Your task to perform on an android device: change the clock display to analog Image 0: 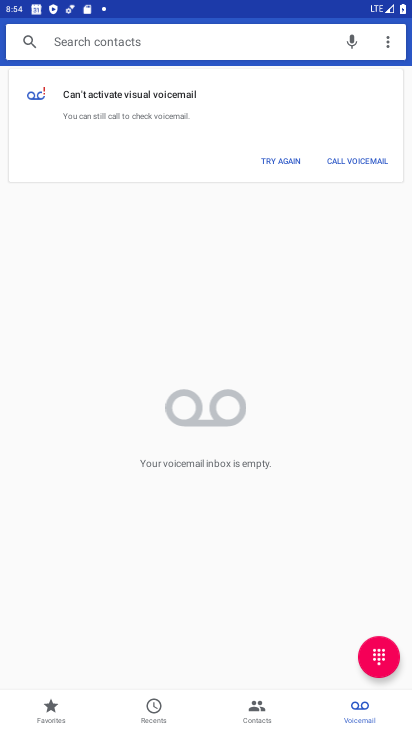
Step 0: press home button
Your task to perform on an android device: change the clock display to analog Image 1: 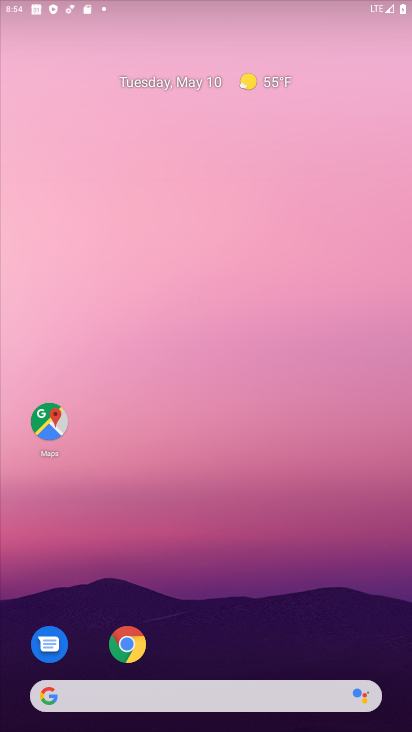
Step 1: drag from (235, 636) to (178, 138)
Your task to perform on an android device: change the clock display to analog Image 2: 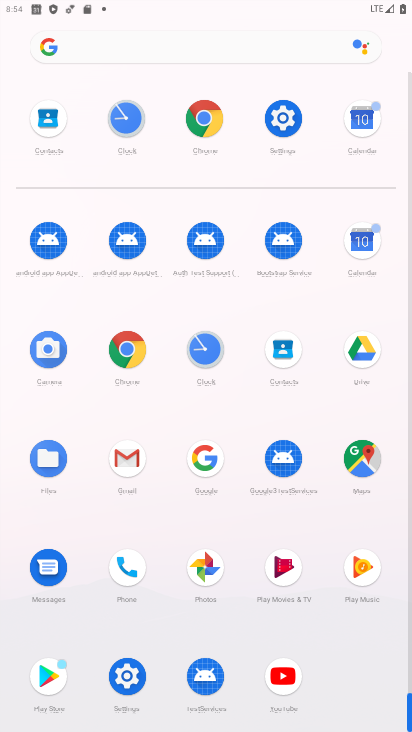
Step 2: click (218, 357)
Your task to perform on an android device: change the clock display to analog Image 3: 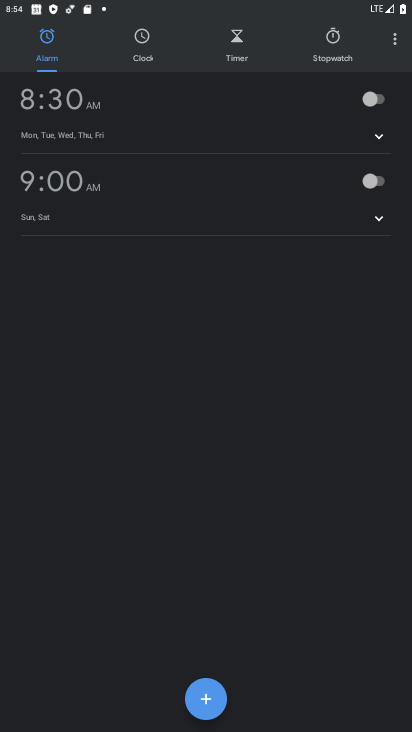
Step 3: click (394, 42)
Your task to perform on an android device: change the clock display to analog Image 4: 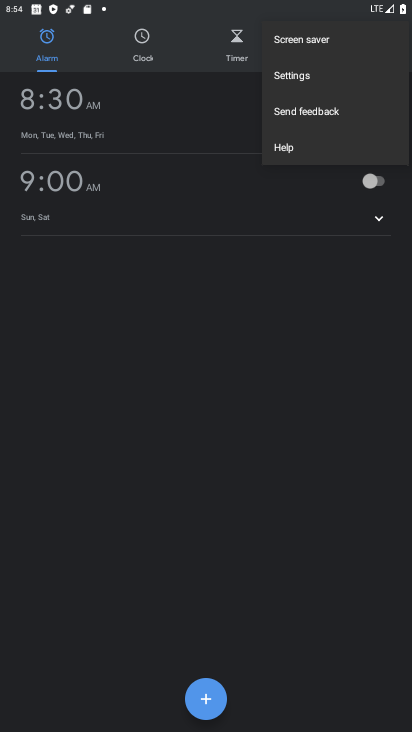
Step 4: click (295, 74)
Your task to perform on an android device: change the clock display to analog Image 5: 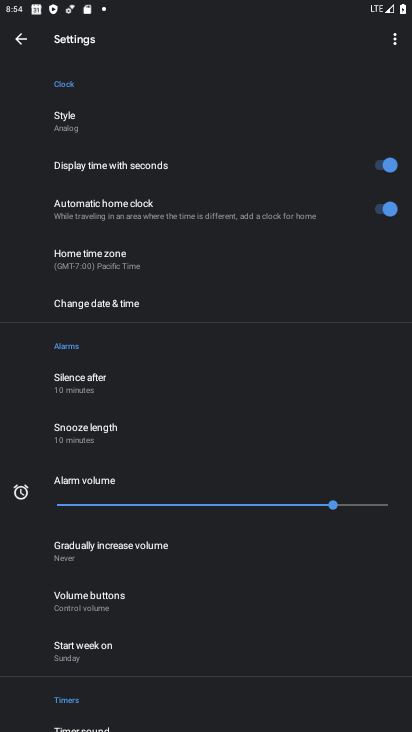
Step 5: click (104, 126)
Your task to perform on an android device: change the clock display to analog Image 6: 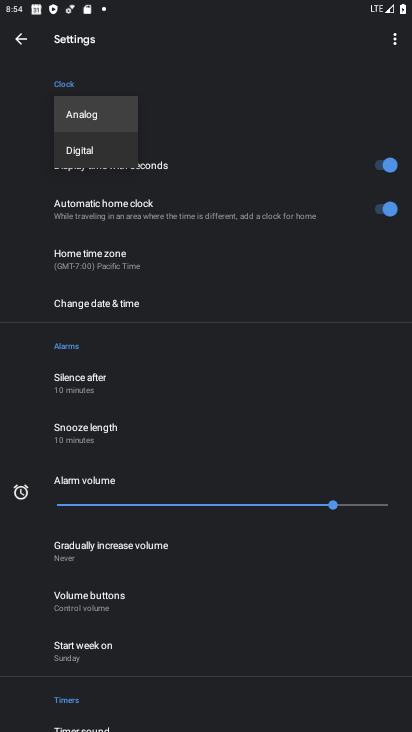
Step 6: task complete